Your task to perform on an android device: Open battery settings Image 0: 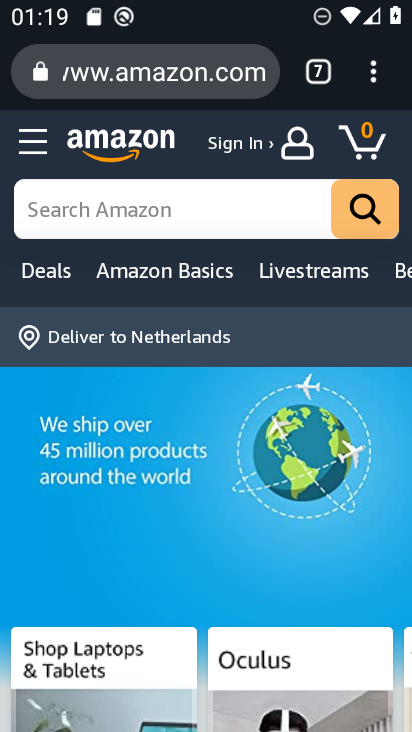
Step 0: press home button
Your task to perform on an android device: Open battery settings Image 1: 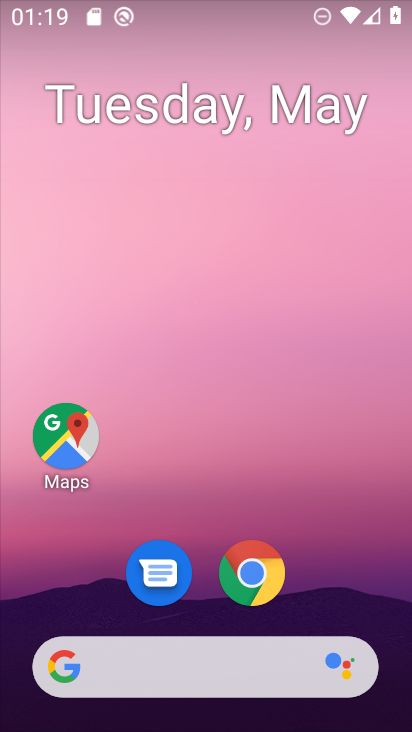
Step 1: drag from (328, 447) to (247, 10)
Your task to perform on an android device: Open battery settings Image 2: 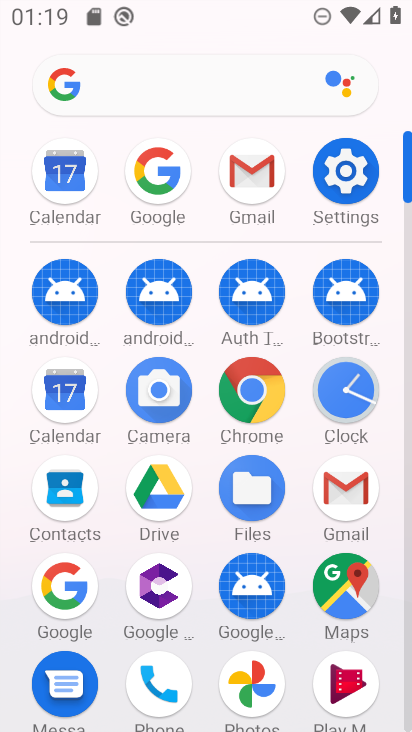
Step 2: click (334, 156)
Your task to perform on an android device: Open battery settings Image 3: 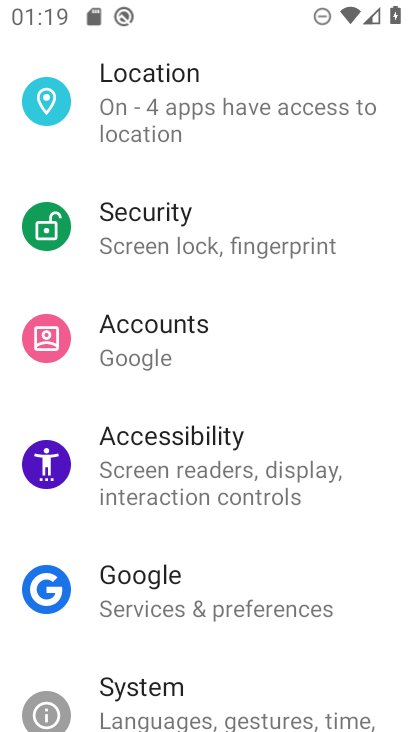
Step 3: drag from (261, 143) to (231, 642)
Your task to perform on an android device: Open battery settings Image 4: 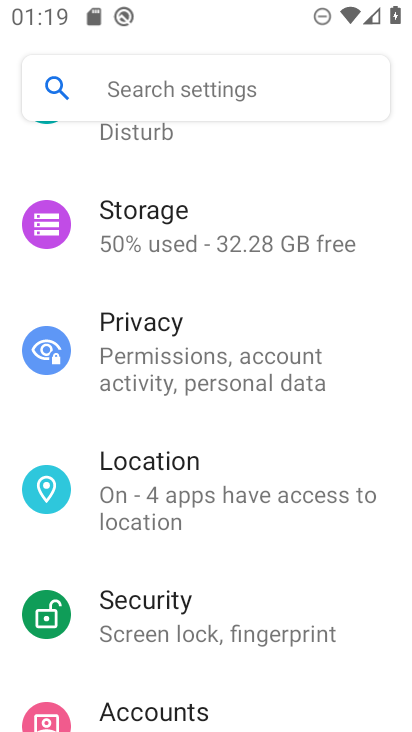
Step 4: drag from (269, 267) to (246, 644)
Your task to perform on an android device: Open battery settings Image 5: 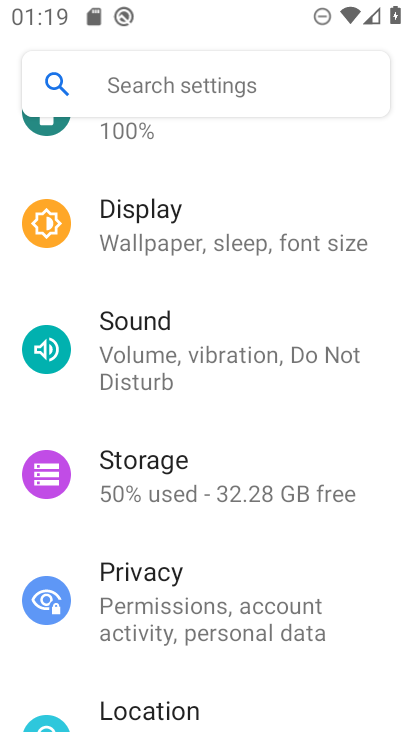
Step 5: drag from (265, 229) to (273, 656)
Your task to perform on an android device: Open battery settings Image 6: 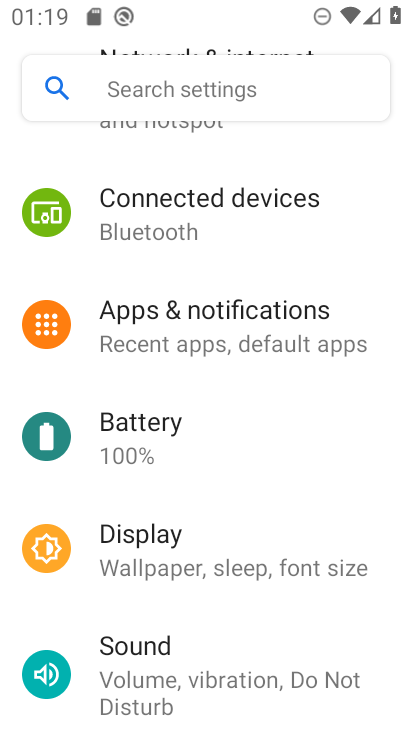
Step 6: click (188, 439)
Your task to perform on an android device: Open battery settings Image 7: 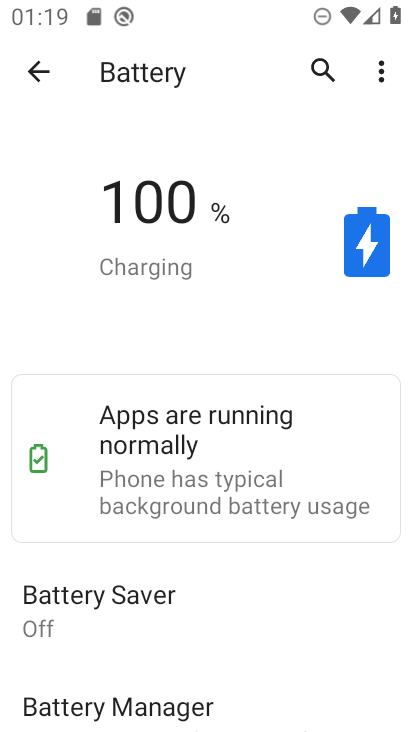
Step 7: task complete